Your task to perform on an android device: Go to settings Image 0: 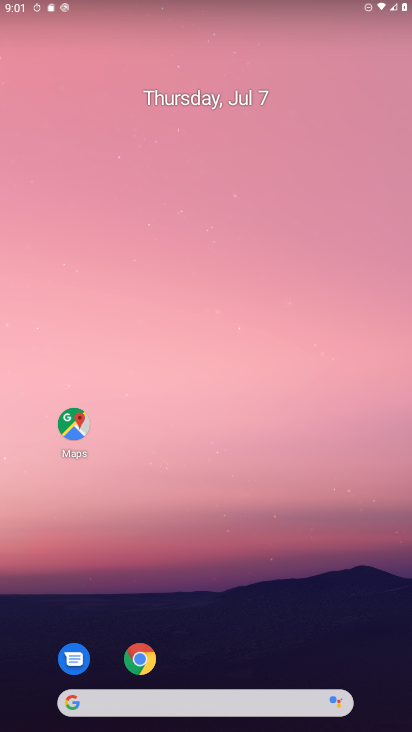
Step 0: drag from (388, 683) to (215, 16)
Your task to perform on an android device: Go to settings Image 1: 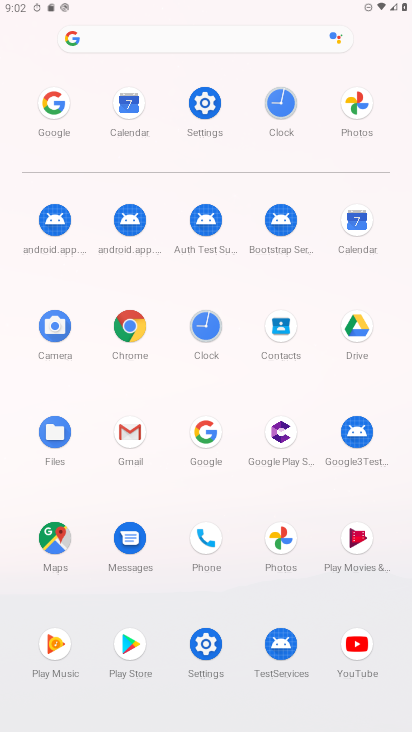
Step 1: click (198, 649)
Your task to perform on an android device: Go to settings Image 2: 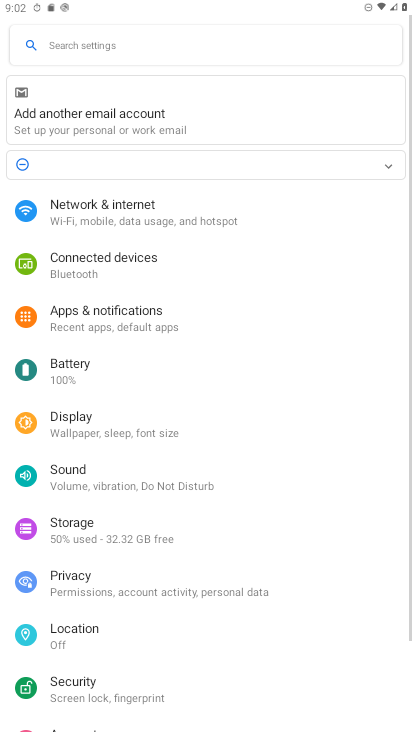
Step 2: task complete